Your task to perform on an android device: Is it going to rain tomorrow? Image 0: 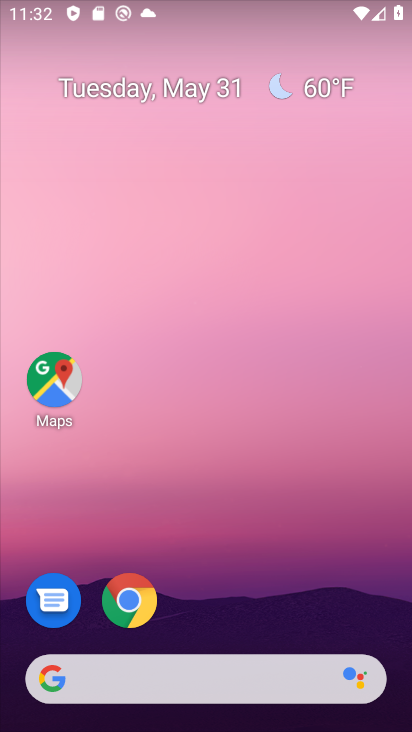
Step 0: click (238, 682)
Your task to perform on an android device: Is it going to rain tomorrow? Image 1: 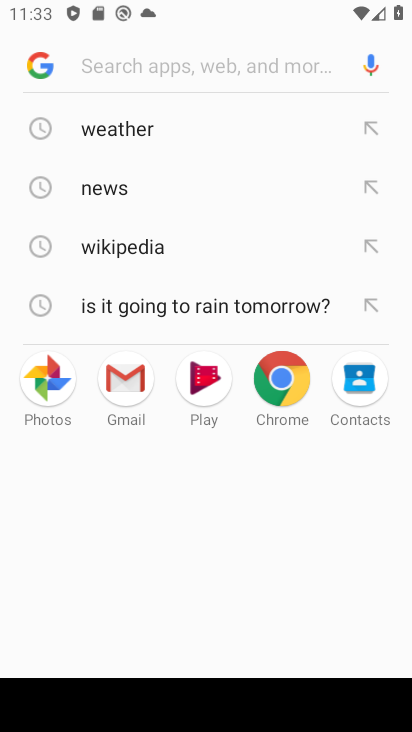
Step 1: click (150, 136)
Your task to perform on an android device: Is it going to rain tomorrow? Image 2: 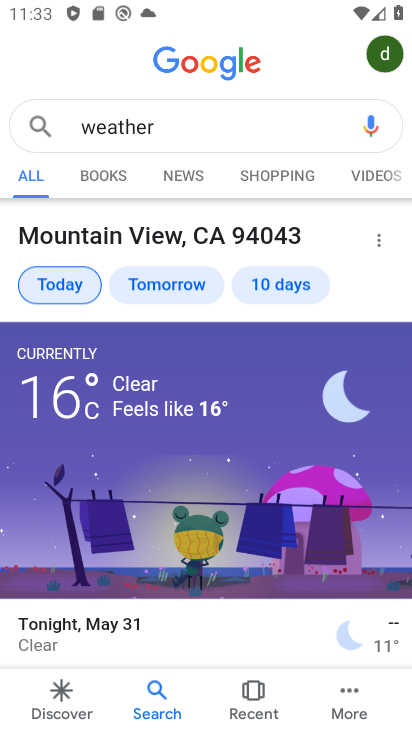
Step 2: click (173, 282)
Your task to perform on an android device: Is it going to rain tomorrow? Image 3: 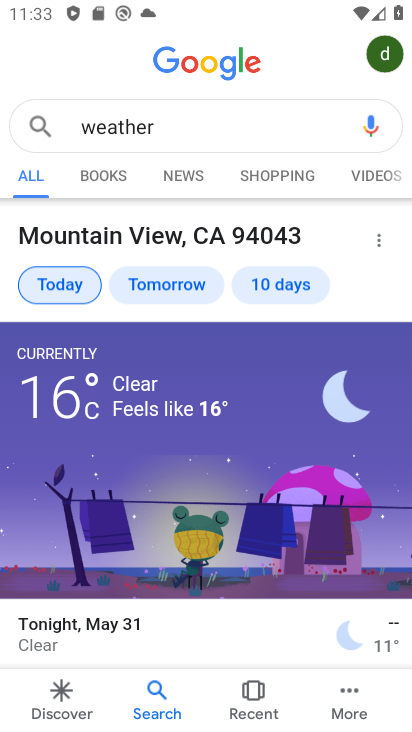
Step 3: task complete